Your task to perform on an android device: Open the calendar app, open the side menu, and click the "Day" option Image 0: 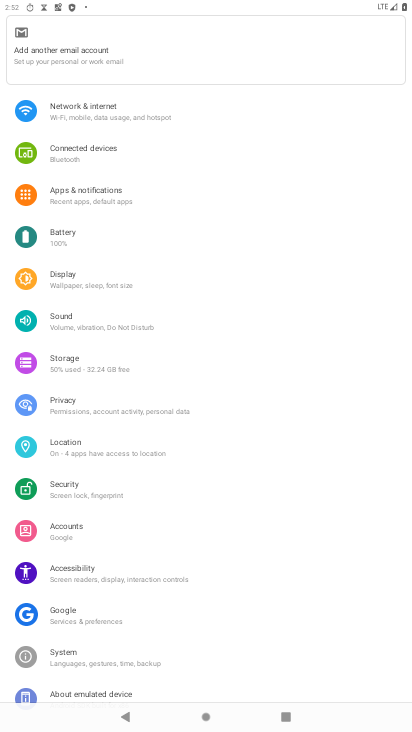
Step 0: press home button
Your task to perform on an android device: Open the calendar app, open the side menu, and click the "Day" option Image 1: 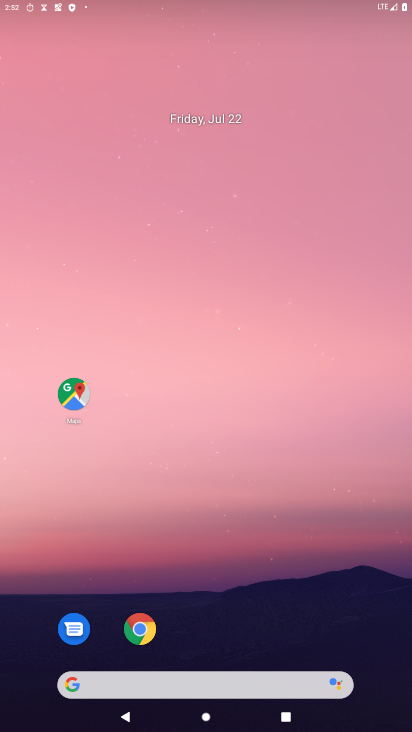
Step 1: drag from (285, 586) to (359, 2)
Your task to perform on an android device: Open the calendar app, open the side menu, and click the "Day" option Image 2: 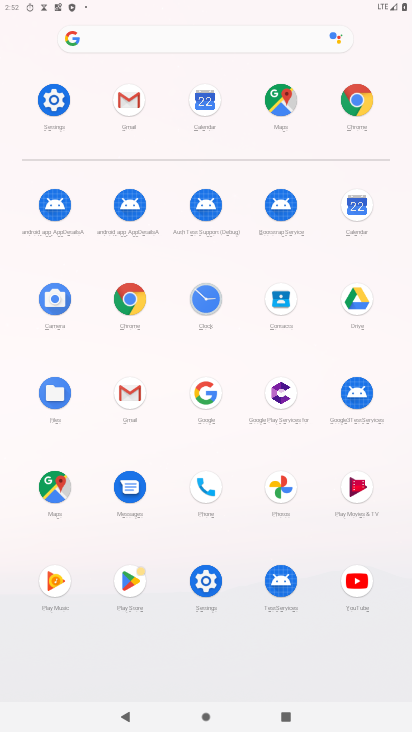
Step 2: click (347, 210)
Your task to perform on an android device: Open the calendar app, open the side menu, and click the "Day" option Image 3: 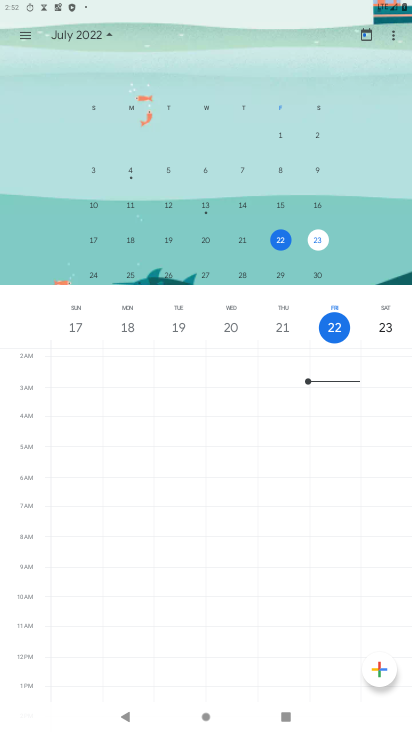
Step 3: click (21, 32)
Your task to perform on an android device: Open the calendar app, open the side menu, and click the "Day" option Image 4: 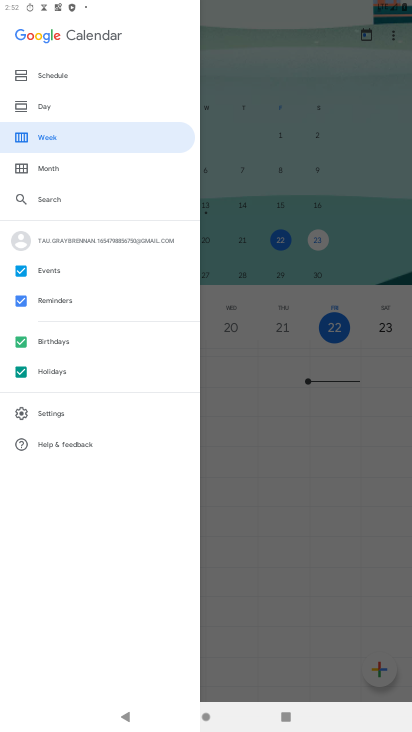
Step 4: click (56, 109)
Your task to perform on an android device: Open the calendar app, open the side menu, and click the "Day" option Image 5: 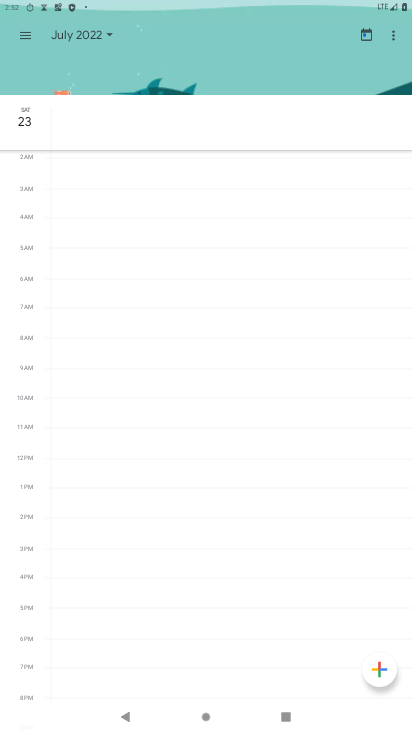
Step 5: task complete